Your task to perform on an android device: check android version Image 0: 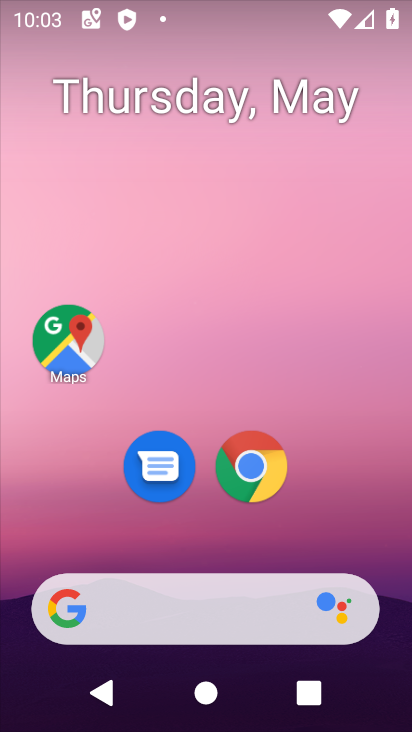
Step 0: drag from (326, 457) to (334, 388)
Your task to perform on an android device: check android version Image 1: 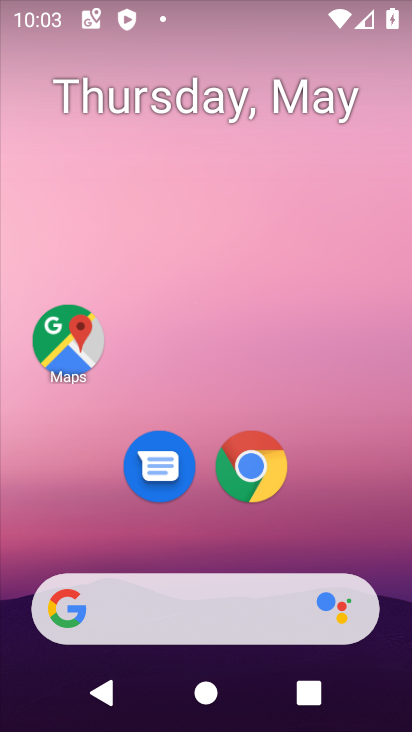
Step 1: drag from (248, 529) to (248, 235)
Your task to perform on an android device: check android version Image 2: 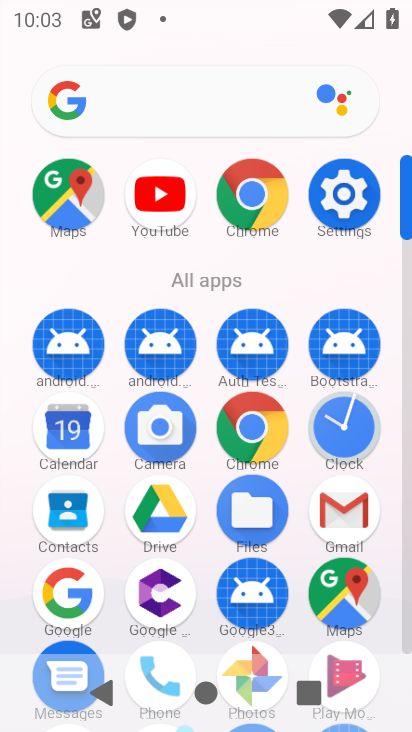
Step 2: click (345, 189)
Your task to perform on an android device: check android version Image 3: 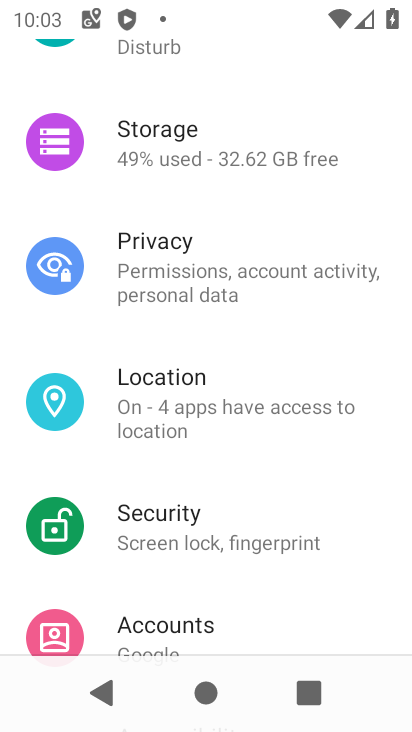
Step 3: drag from (222, 552) to (223, 198)
Your task to perform on an android device: check android version Image 4: 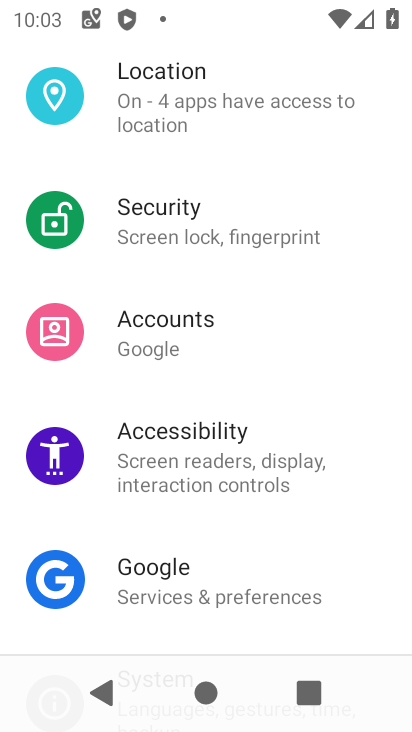
Step 4: drag from (186, 576) to (218, 279)
Your task to perform on an android device: check android version Image 5: 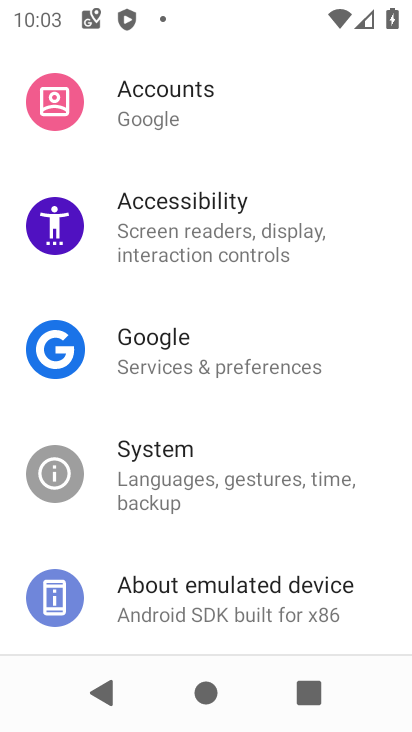
Step 5: drag from (153, 612) to (189, 453)
Your task to perform on an android device: check android version Image 6: 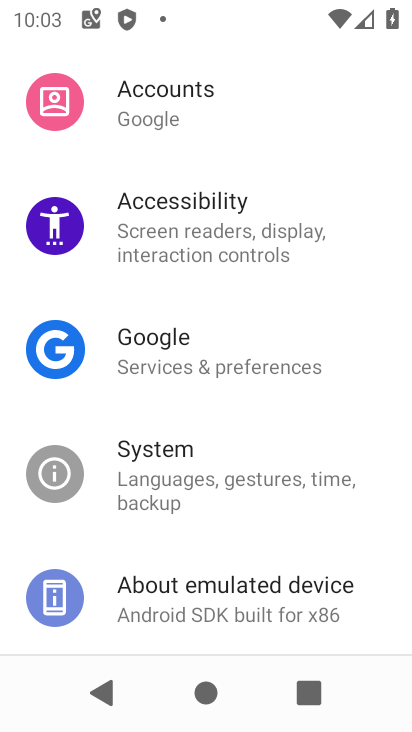
Step 6: click (170, 603)
Your task to perform on an android device: check android version Image 7: 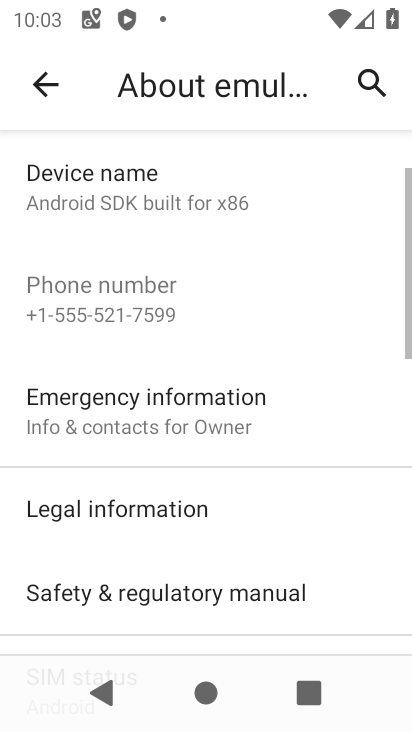
Step 7: drag from (172, 582) to (222, 162)
Your task to perform on an android device: check android version Image 8: 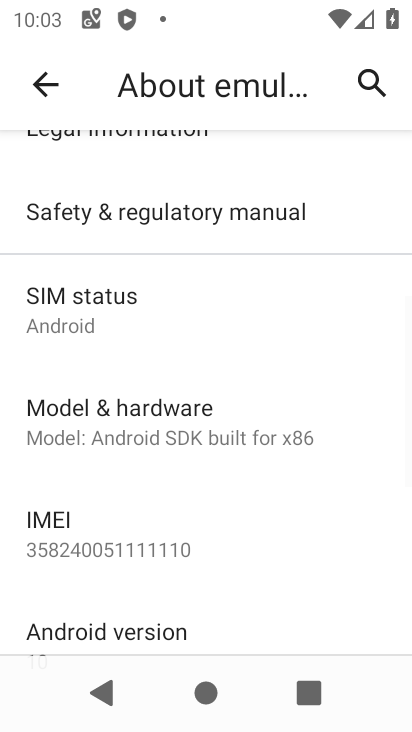
Step 8: drag from (152, 581) to (249, 171)
Your task to perform on an android device: check android version Image 9: 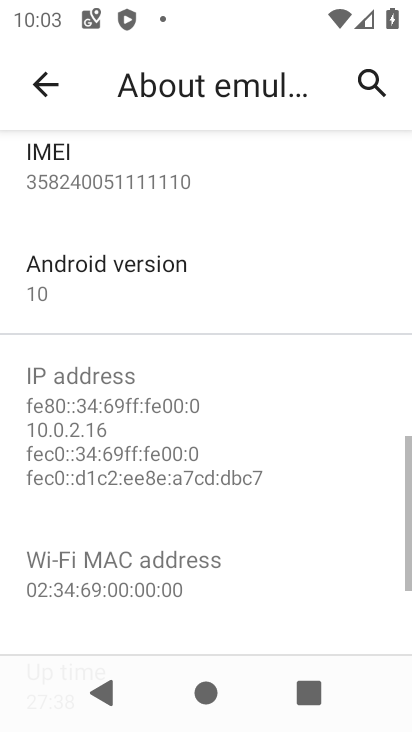
Step 9: click (119, 279)
Your task to perform on an android device: check android version Image 10: 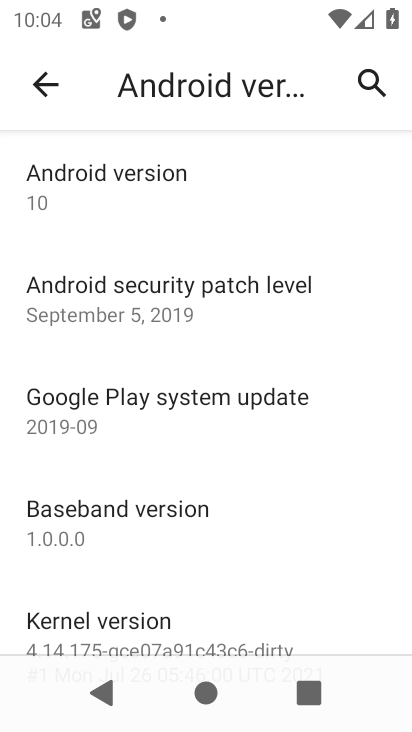
Step 10: task complete